Your task to perform on an android device: install app "Google News" Image 0: 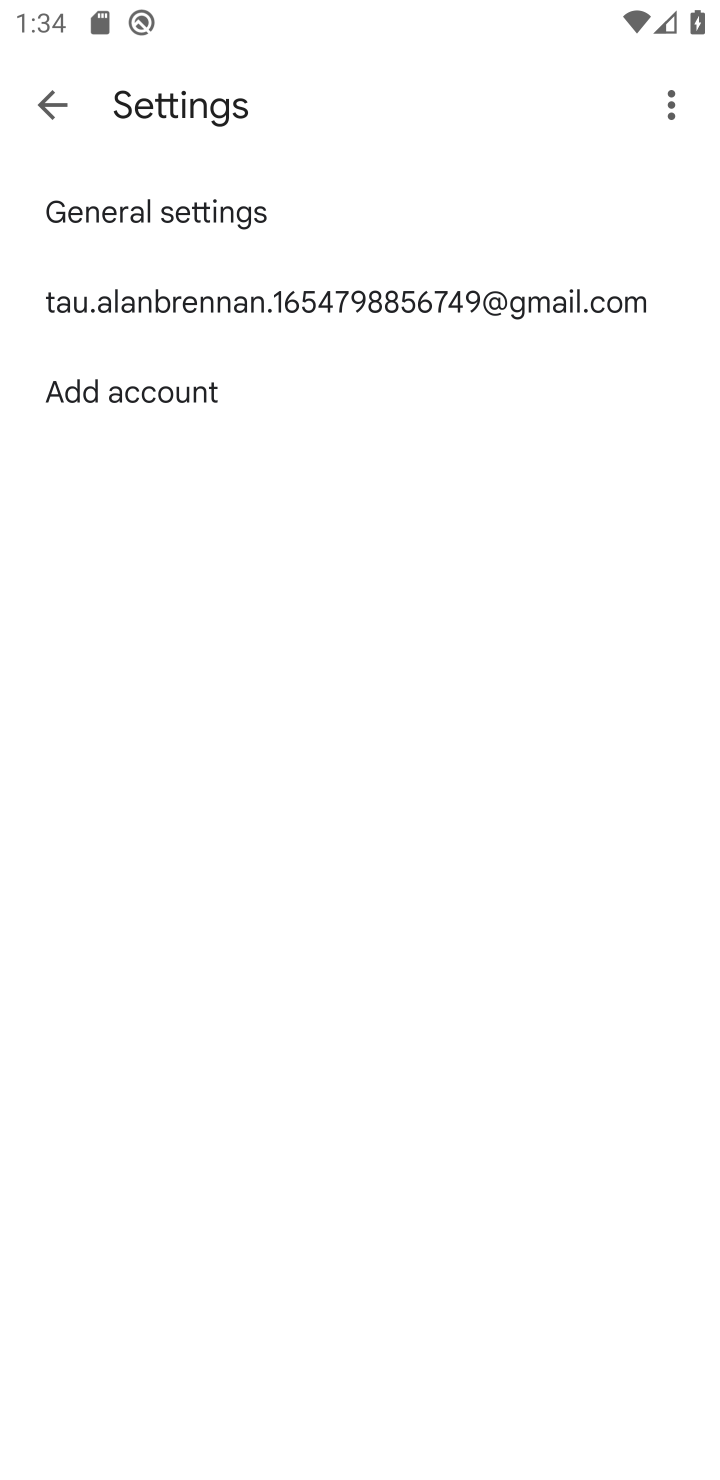
Step 0: press home button
Your task to perform on an android device: install app "Google News" Image 1: 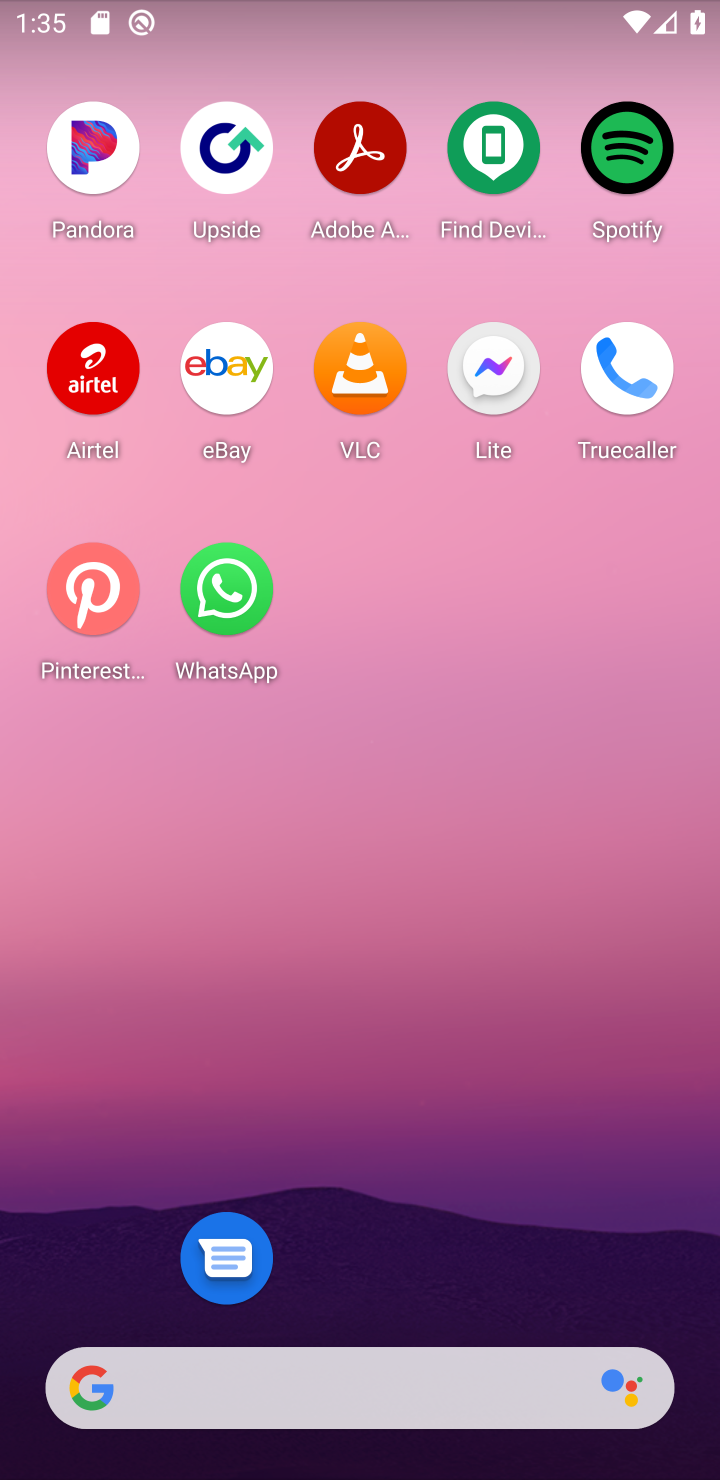
Step 1: drag from (321, 1414) to (367, 209)
Your task to perform on an android device: install app "Google News" Image 2: 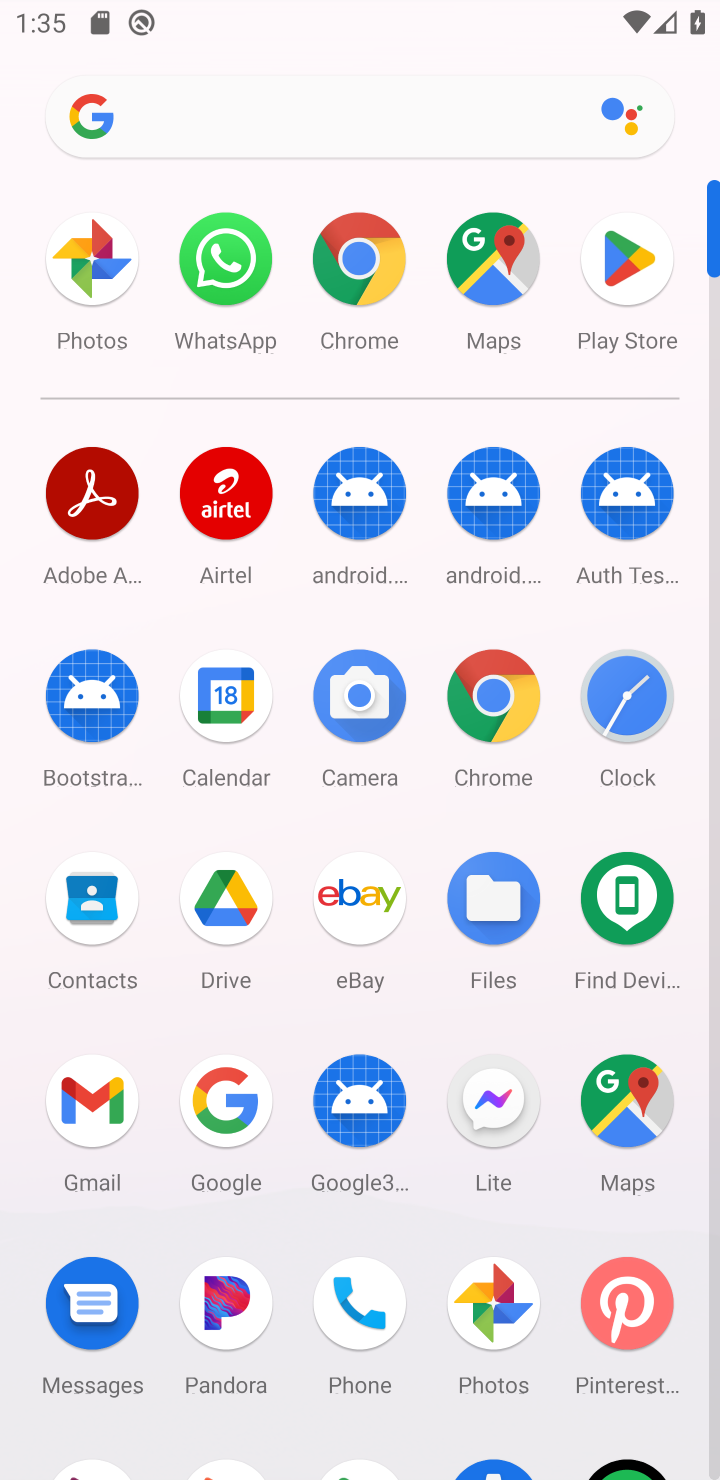
Step 2: drag from (441, 1312) to (537, 364)
Your task to perform on an android device: install app "Google News" Image 3: 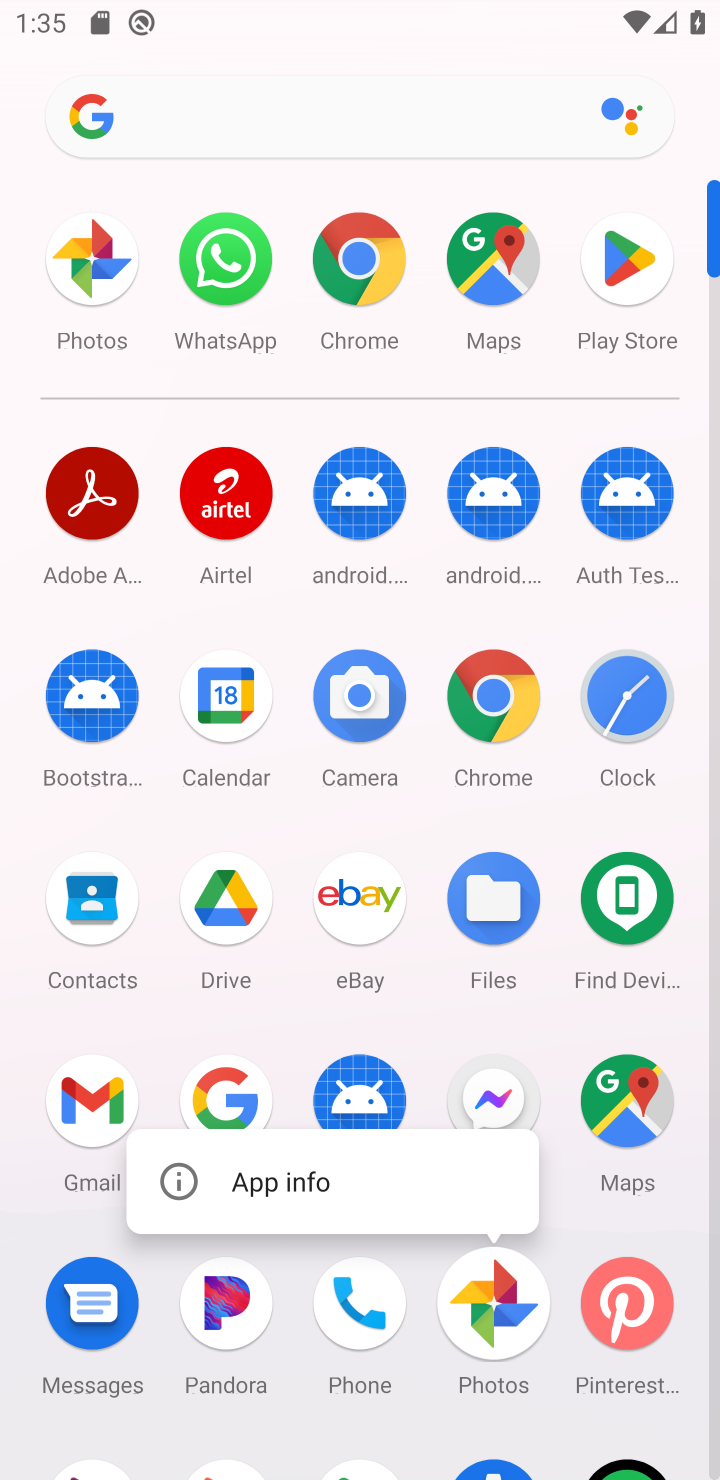
Step 3: drag from (381, 1304) to (520, 412)
Your task to perform on an android device: install app "Google News" Image 4: 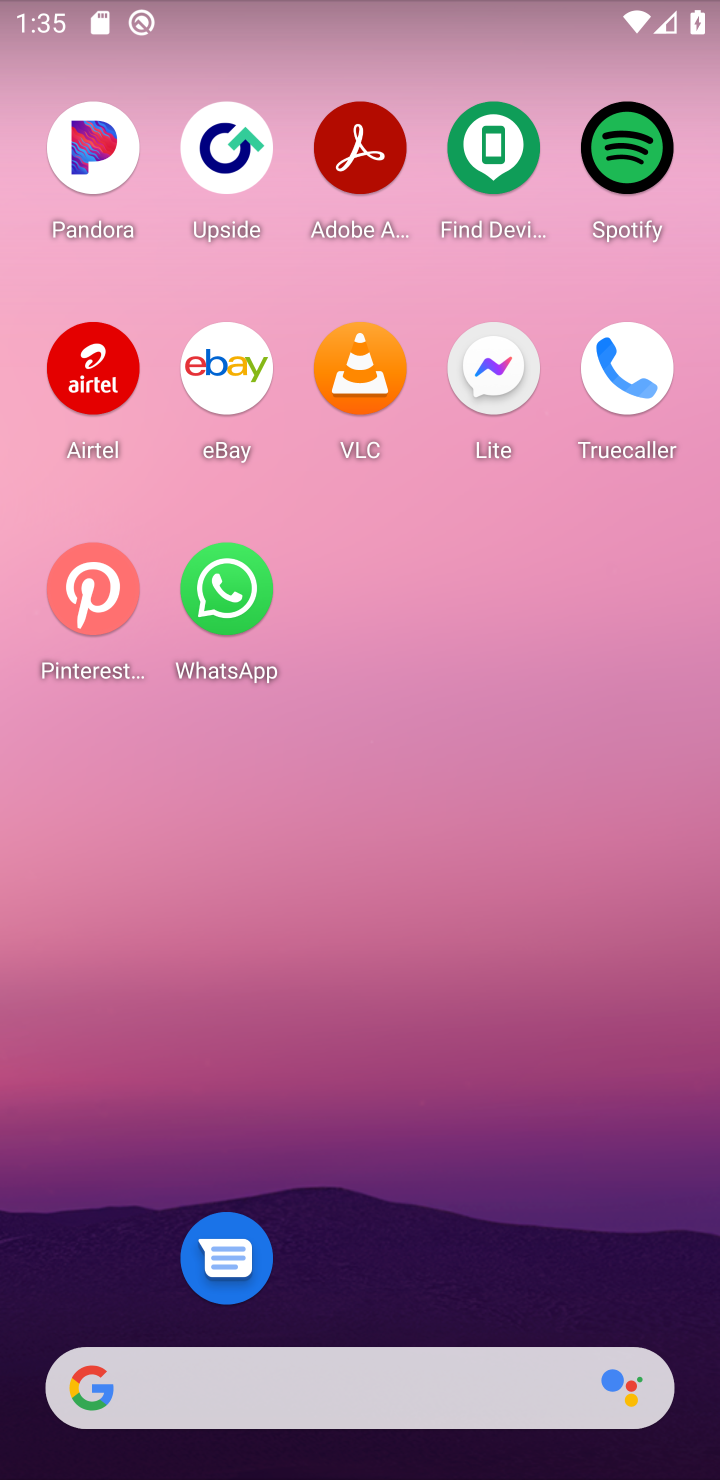
Step 4: drag from (491, 1351) to (509, 89)
Your task to perform on an android device: install app "Google News" Image 5: 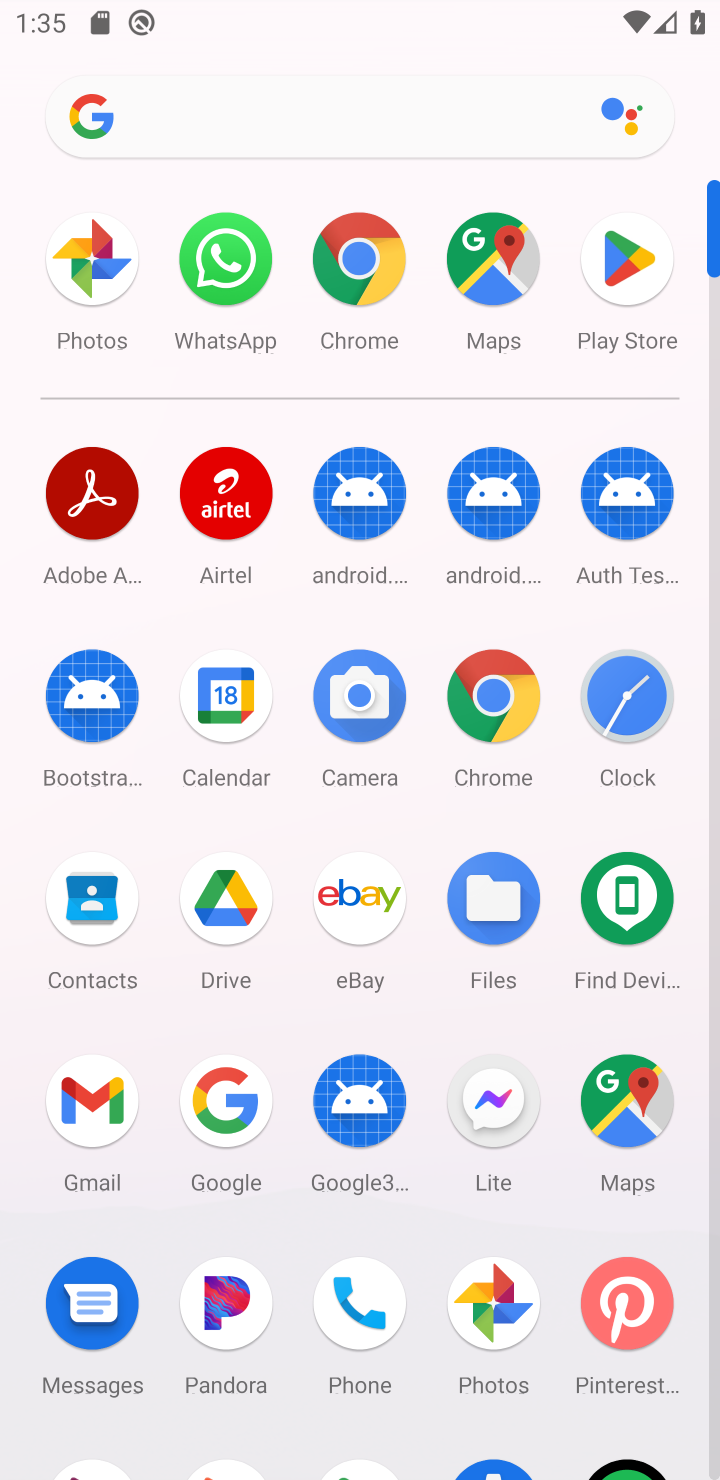
Step 5: drag from (431, 1270) to (523, 165)
Your task to perform on an android device: install app "Google News" Image 6: 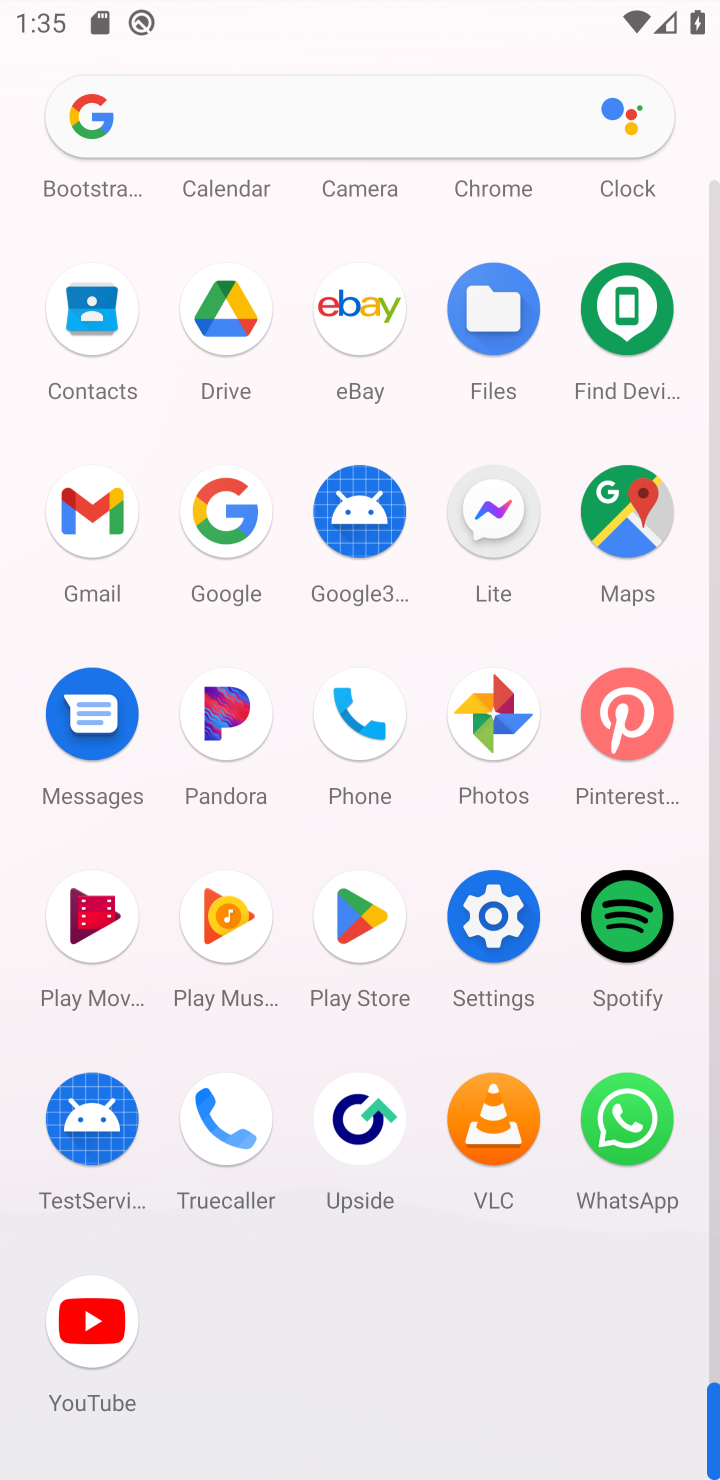
Step 6: click (618, 276)
Your task to perform on an android device: install app "Google News" Image 7: 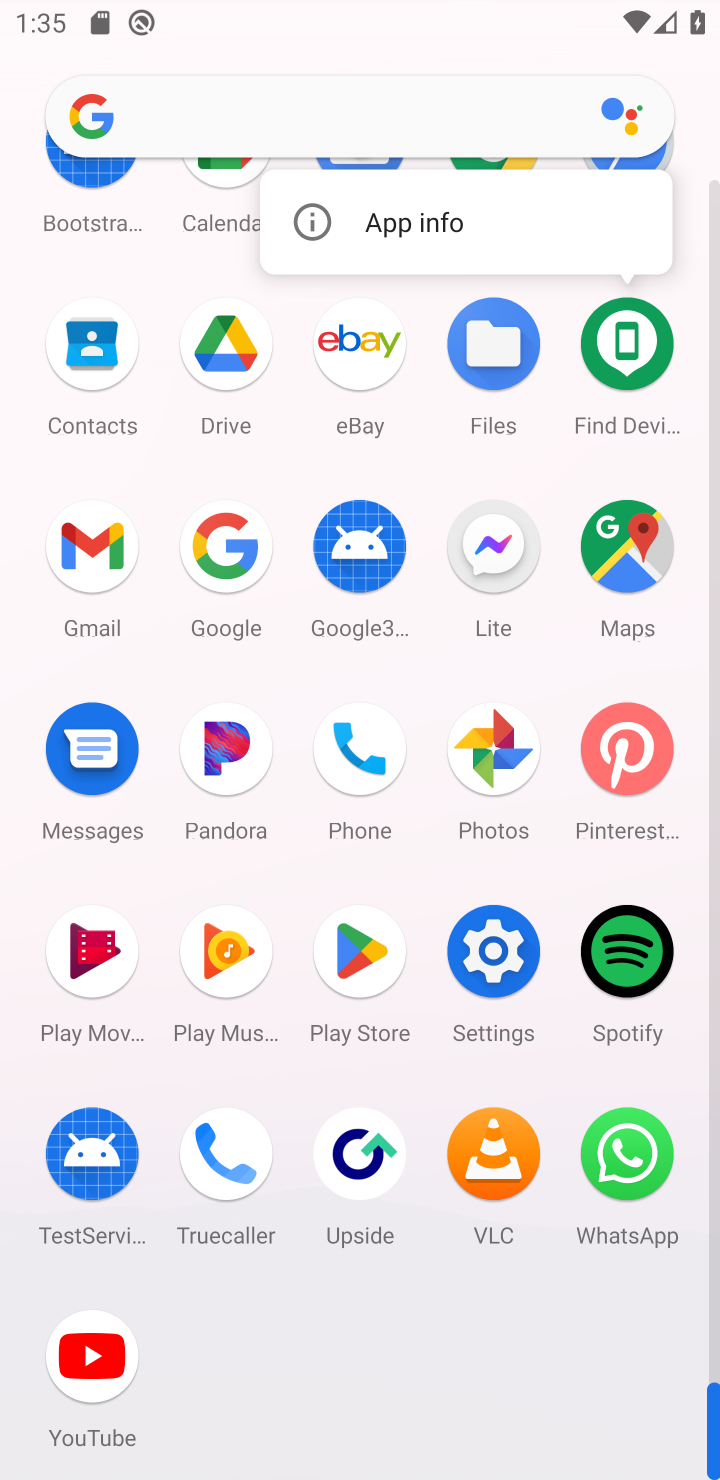
Step 7: click (345, 924)
Your task to perform on an android device: install app "Google News" Image 8: 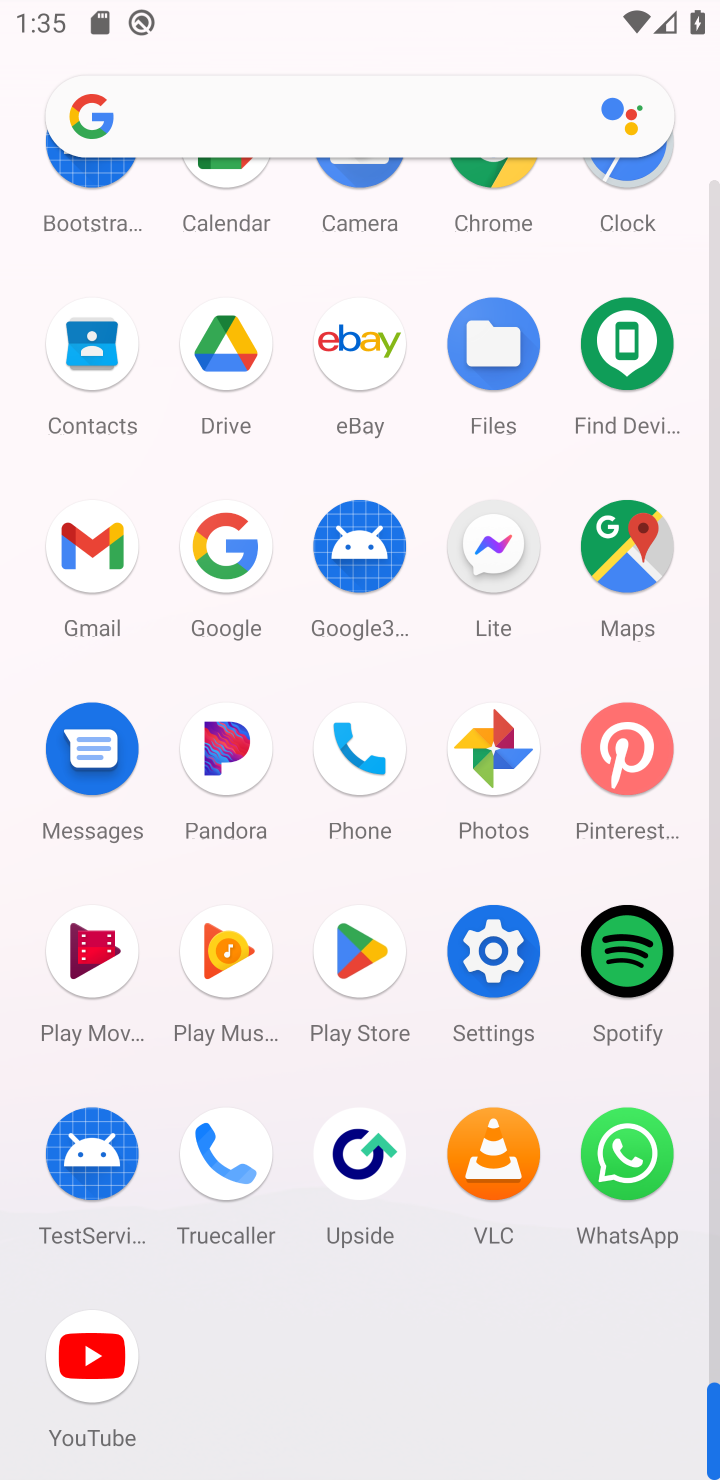
Step 8: click (345, 924)
Your task to perform on an android device: install app "Google News" Image 9: 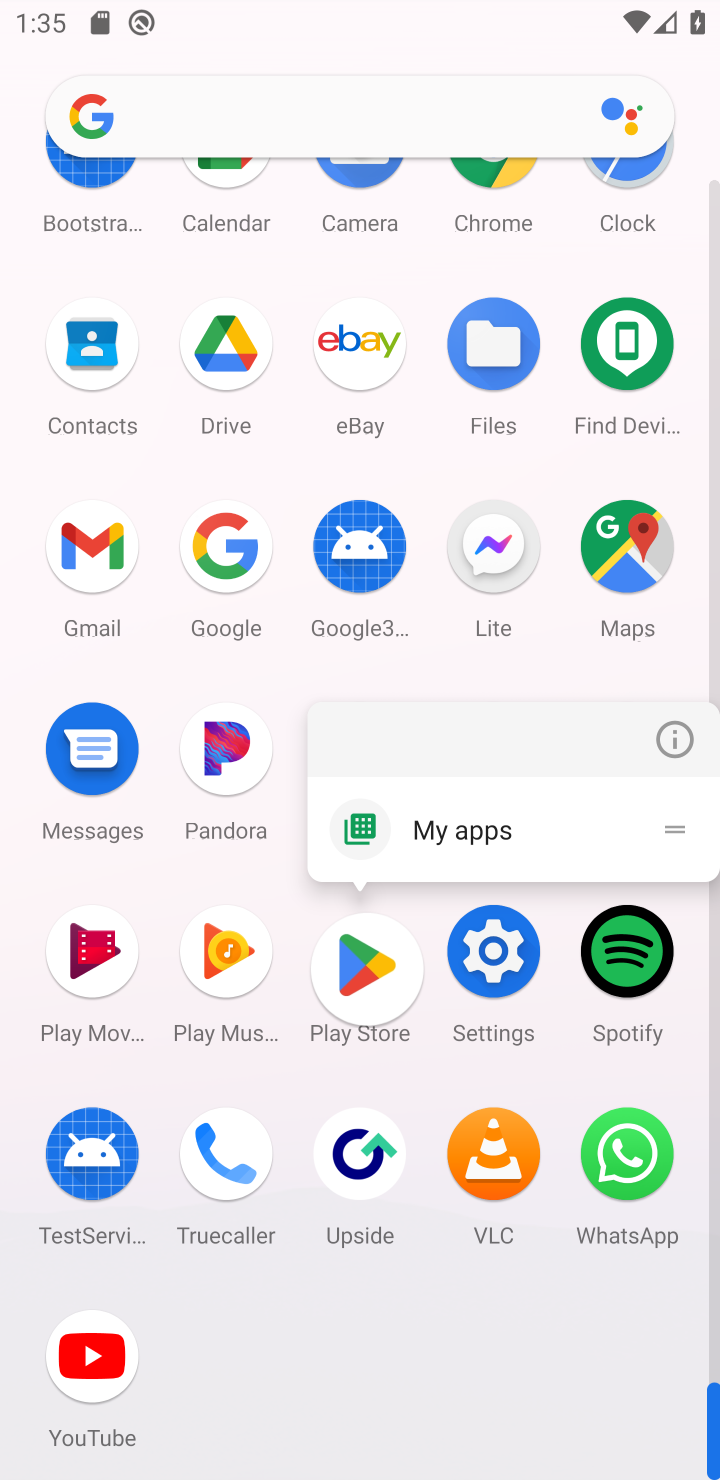
Step 9: click (352, 934)
Your task to perform on an android device: install app "Google News" Image 10: 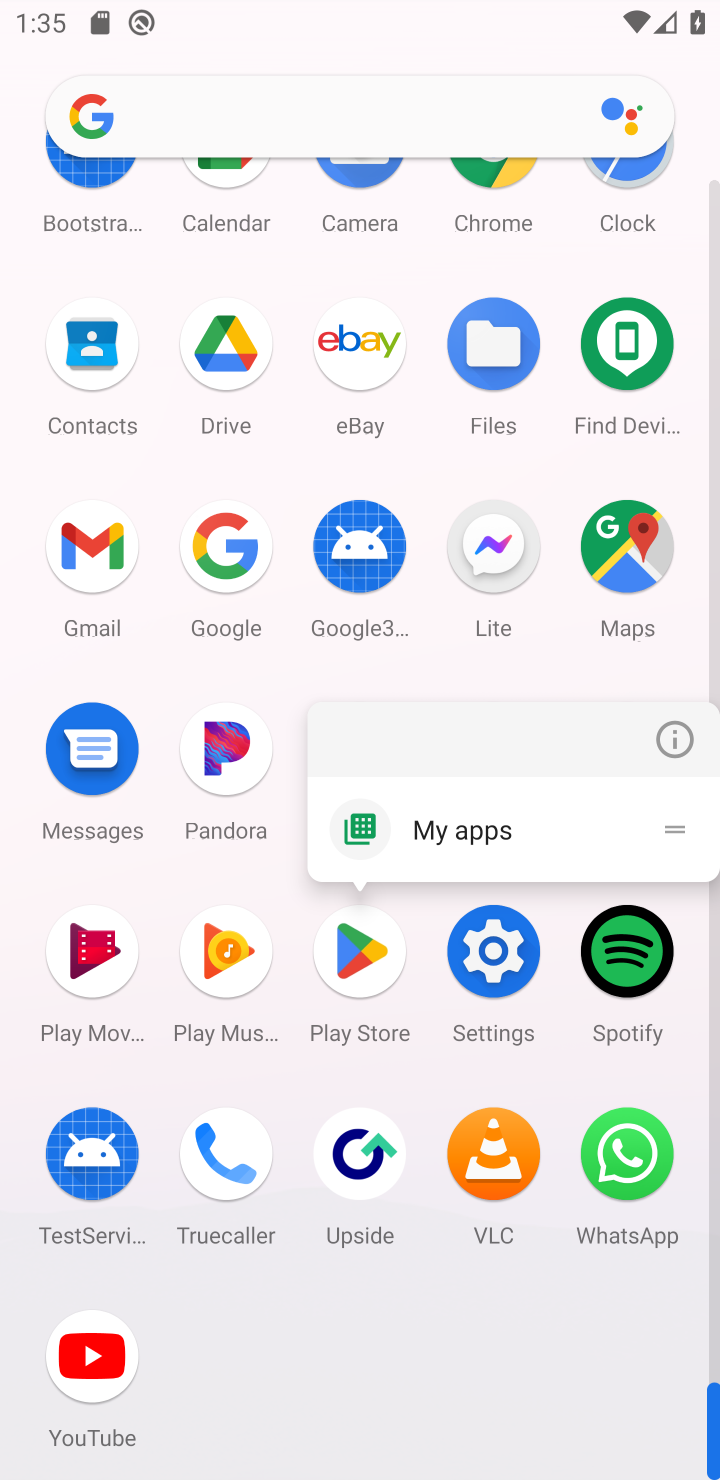
Step 10: click (375, 946)
Your task to perform on an android device: install app "Google News" Image 11: 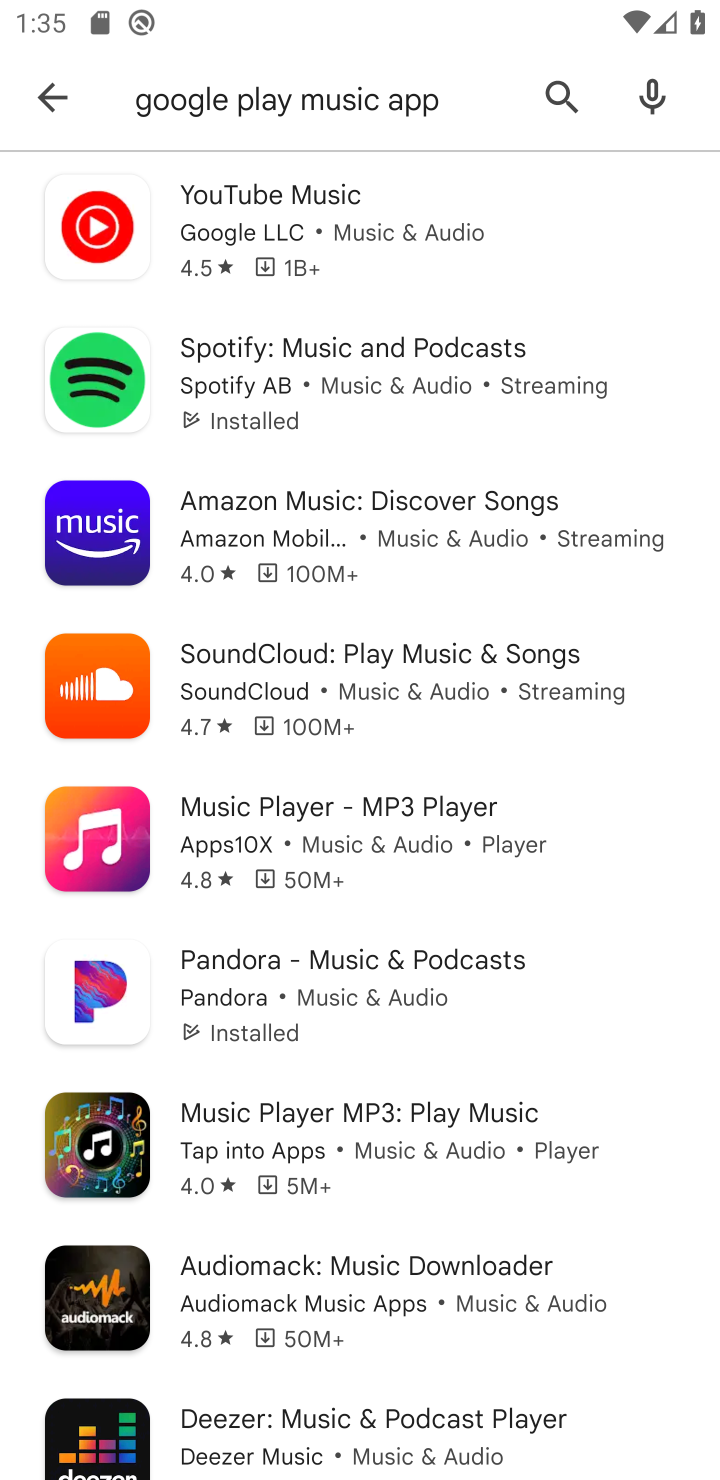
Step 11: click (557, 85)
Your task to perform on an android device: install app "Google News" Image 12: 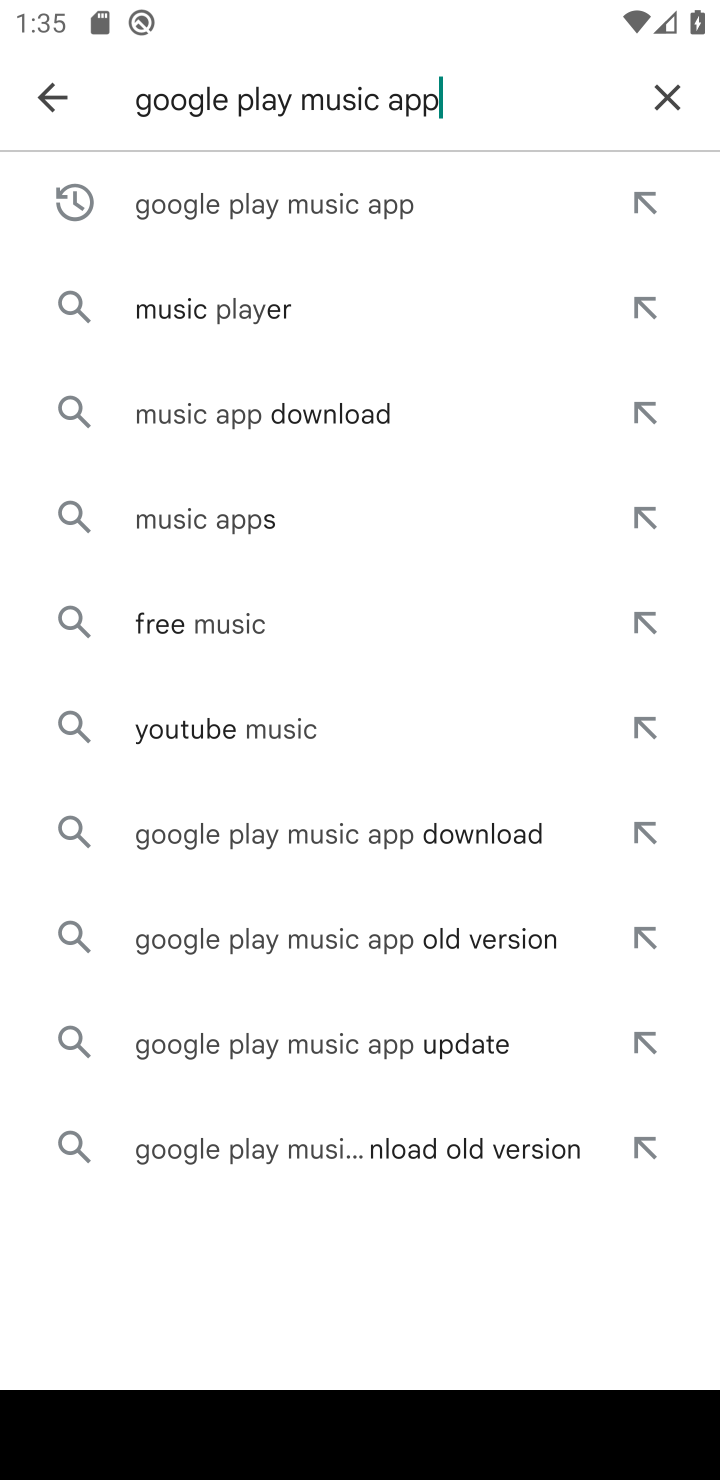
Step 12: click (666, 99)
Your task to perform on an android device: install app "Google News" Image 13: 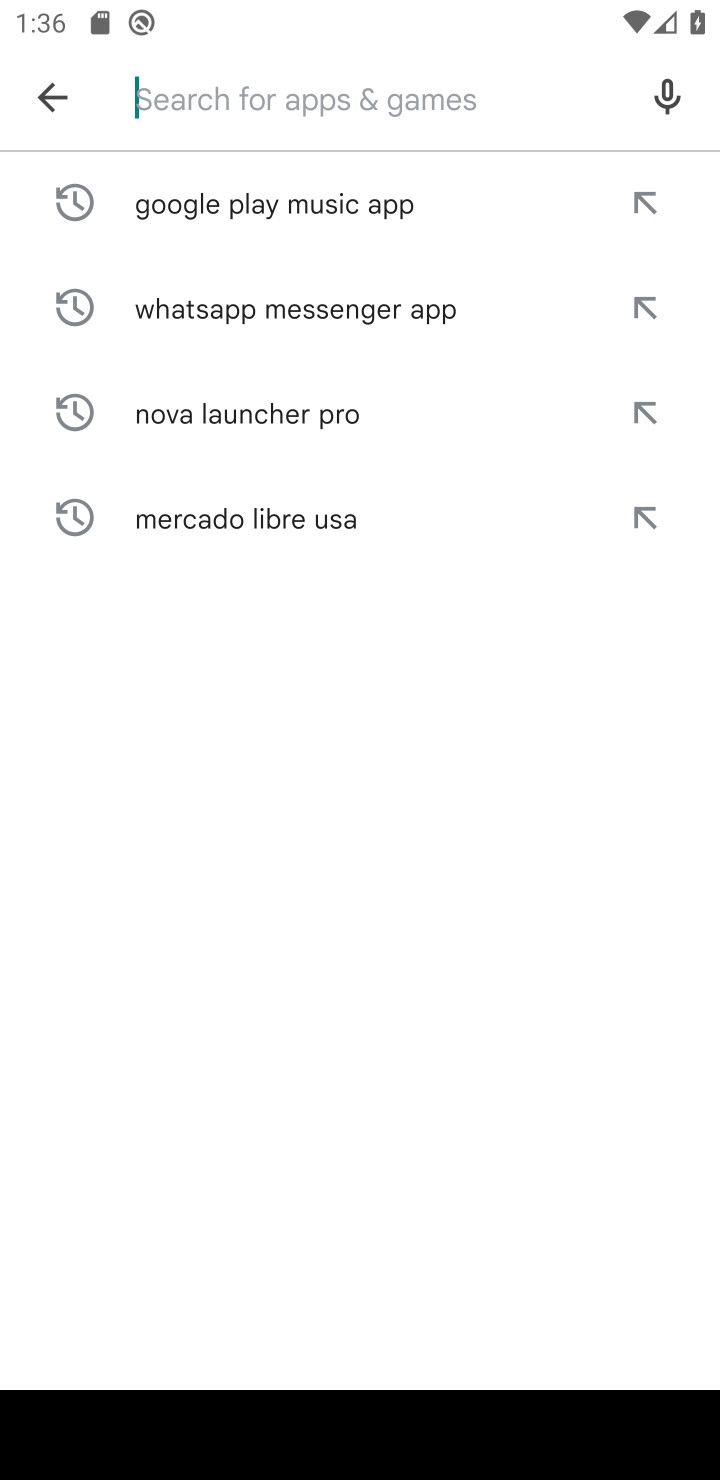
Step 13: click (380, 77)
Your task to perform on an android device: install app "Google News" Image 14: 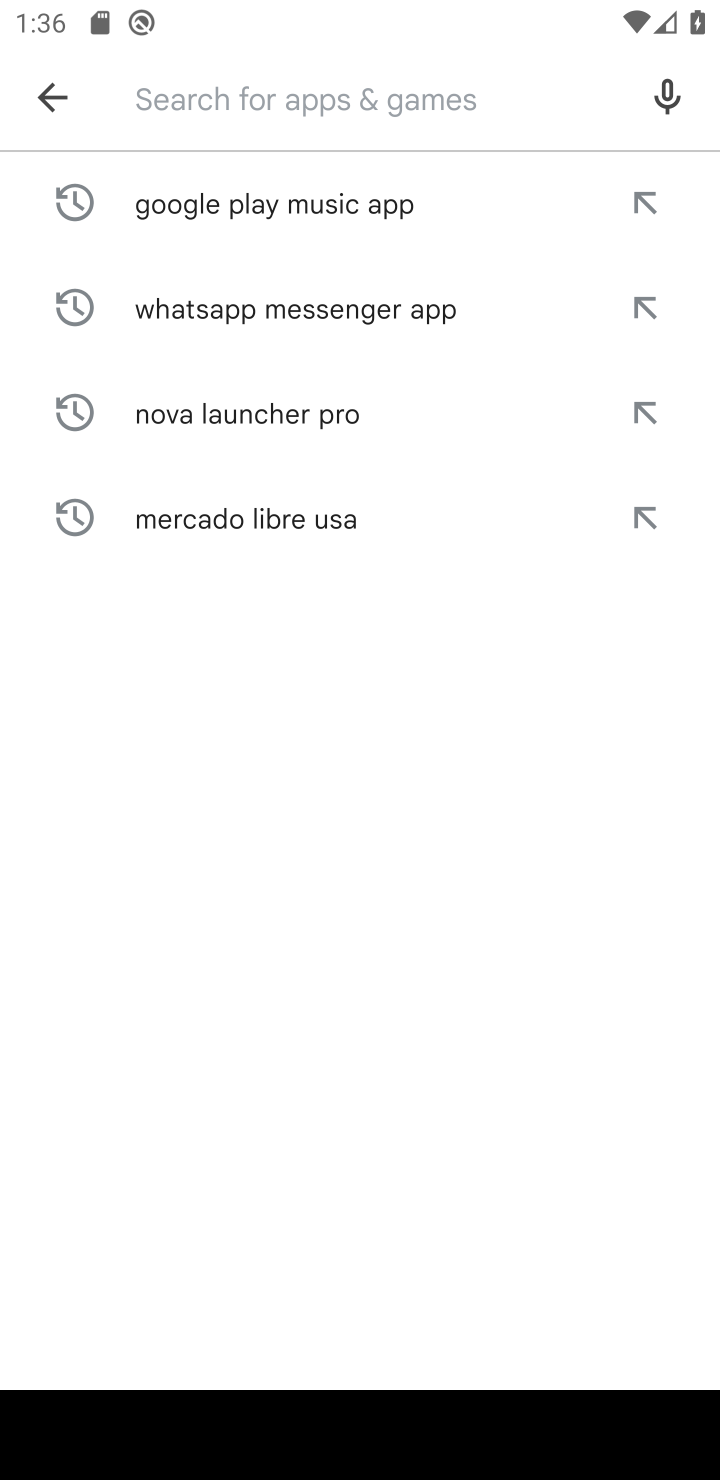
Step 14: type "Google News "
Your task to perform on an android device: install app "Google News" Image 15: 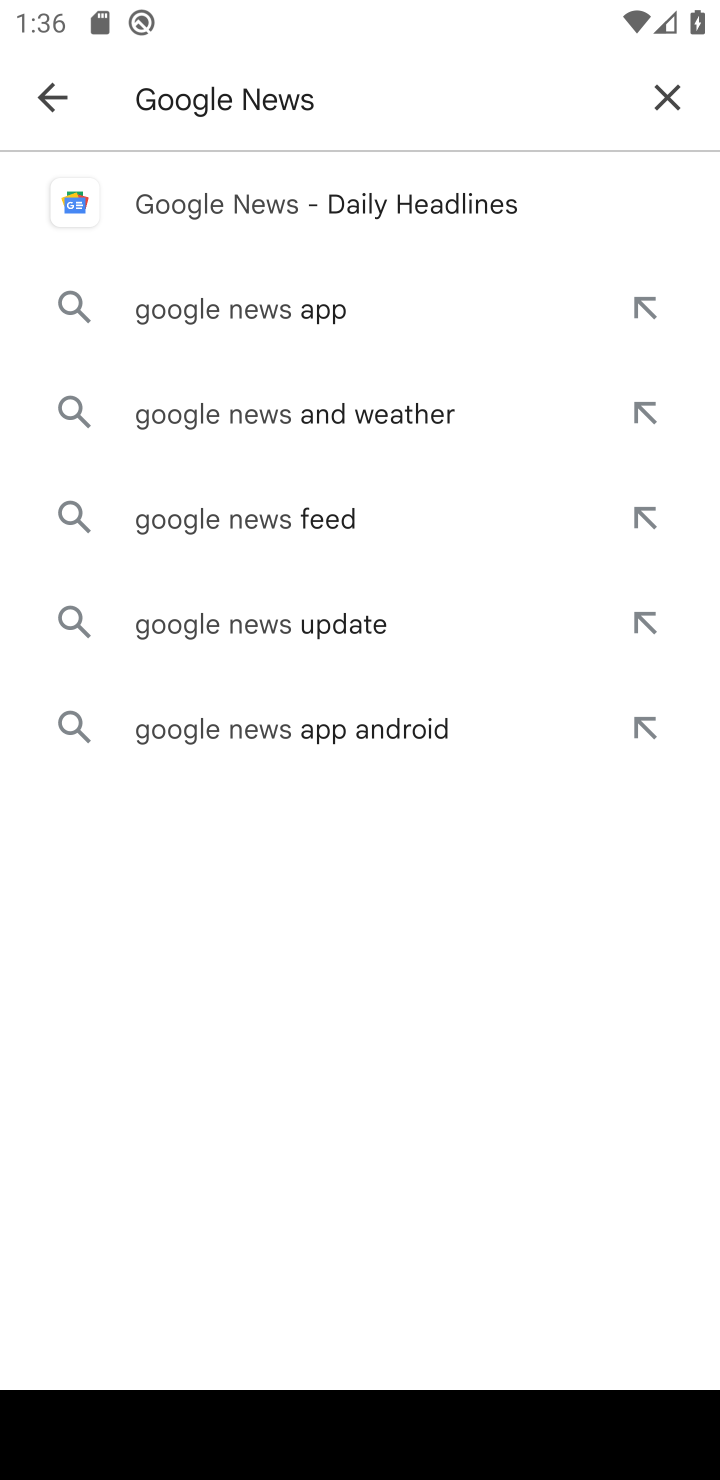
Step 15: click (346, 180)
Your task to perform on an android device: install app "Google News" Image 16: 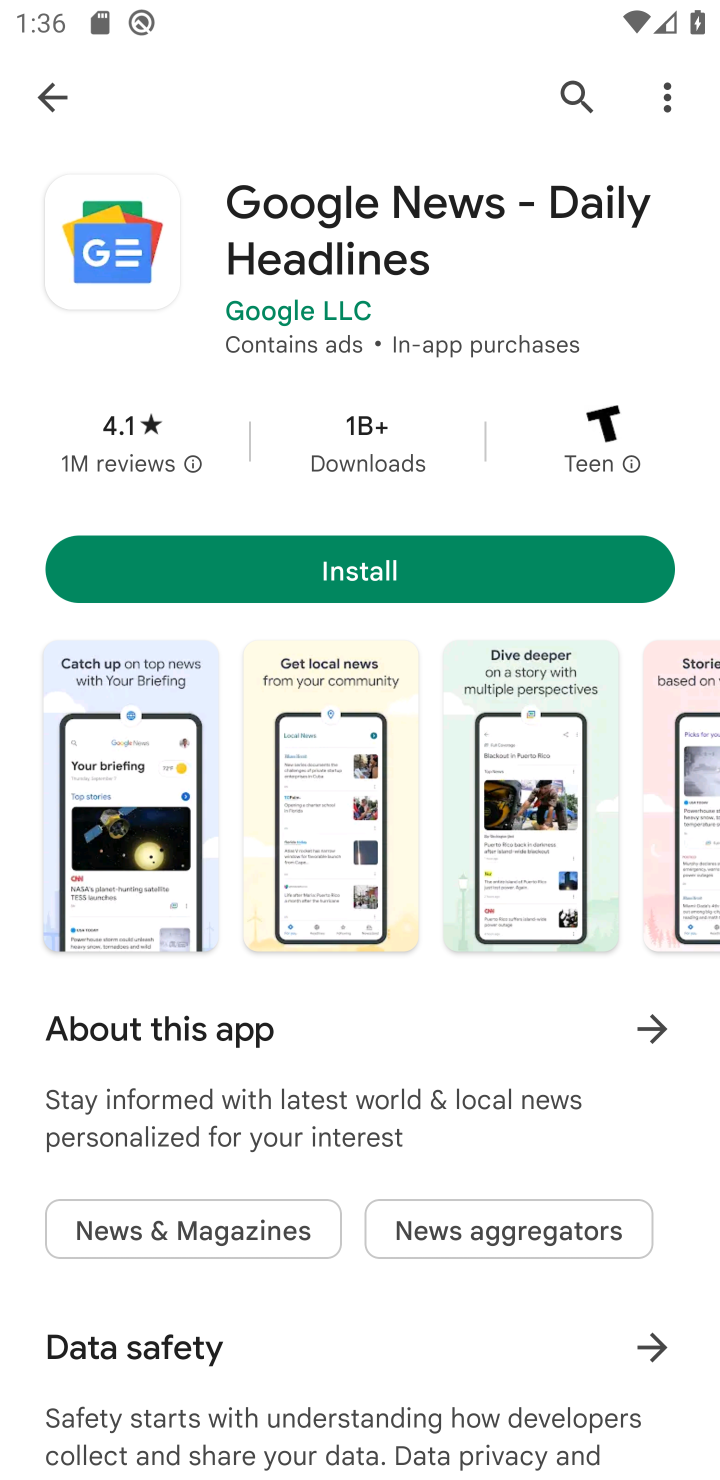
Step 16: click (401, 557)
Your task to perform on an android device: install app "Google News" Image 17: 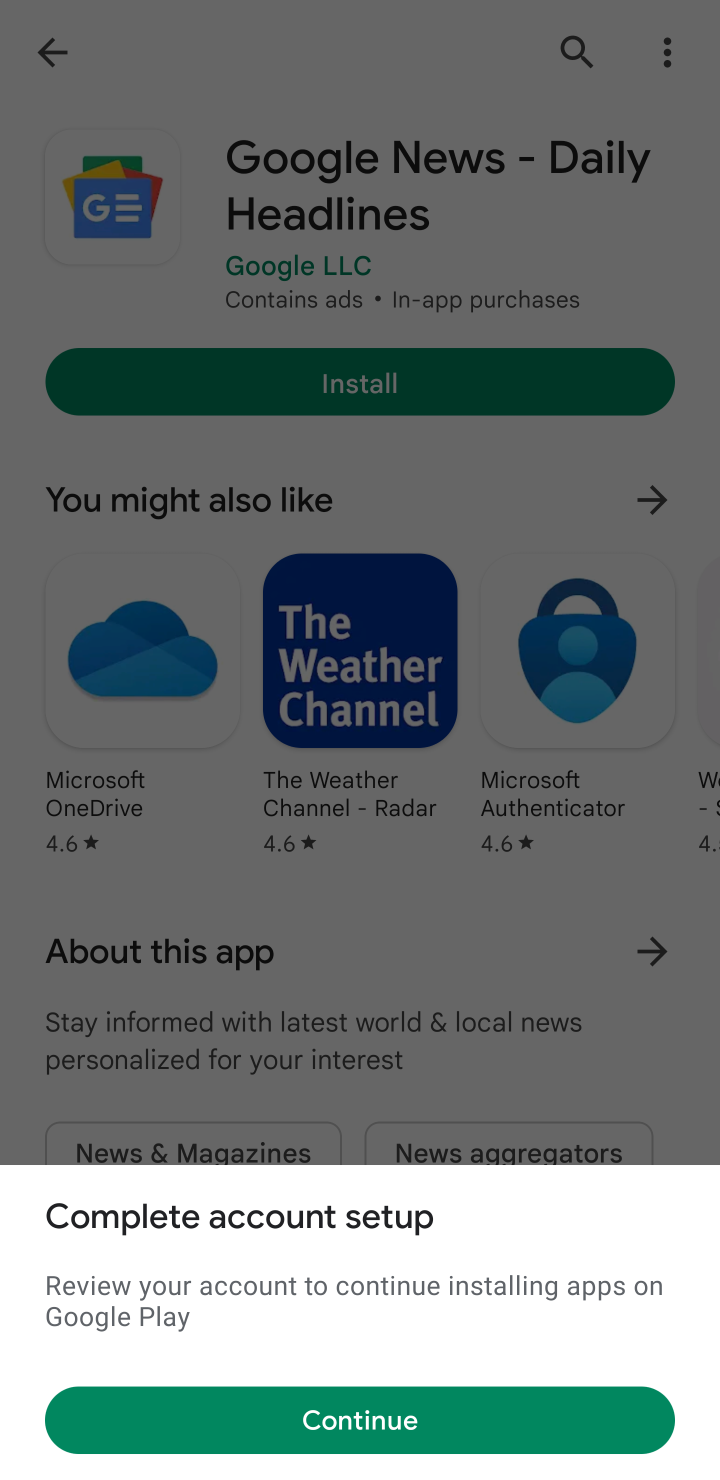
Step 17: task complete